Your task to perform on an android device: install app "Walmart Shopping & Grocery" Image 0: 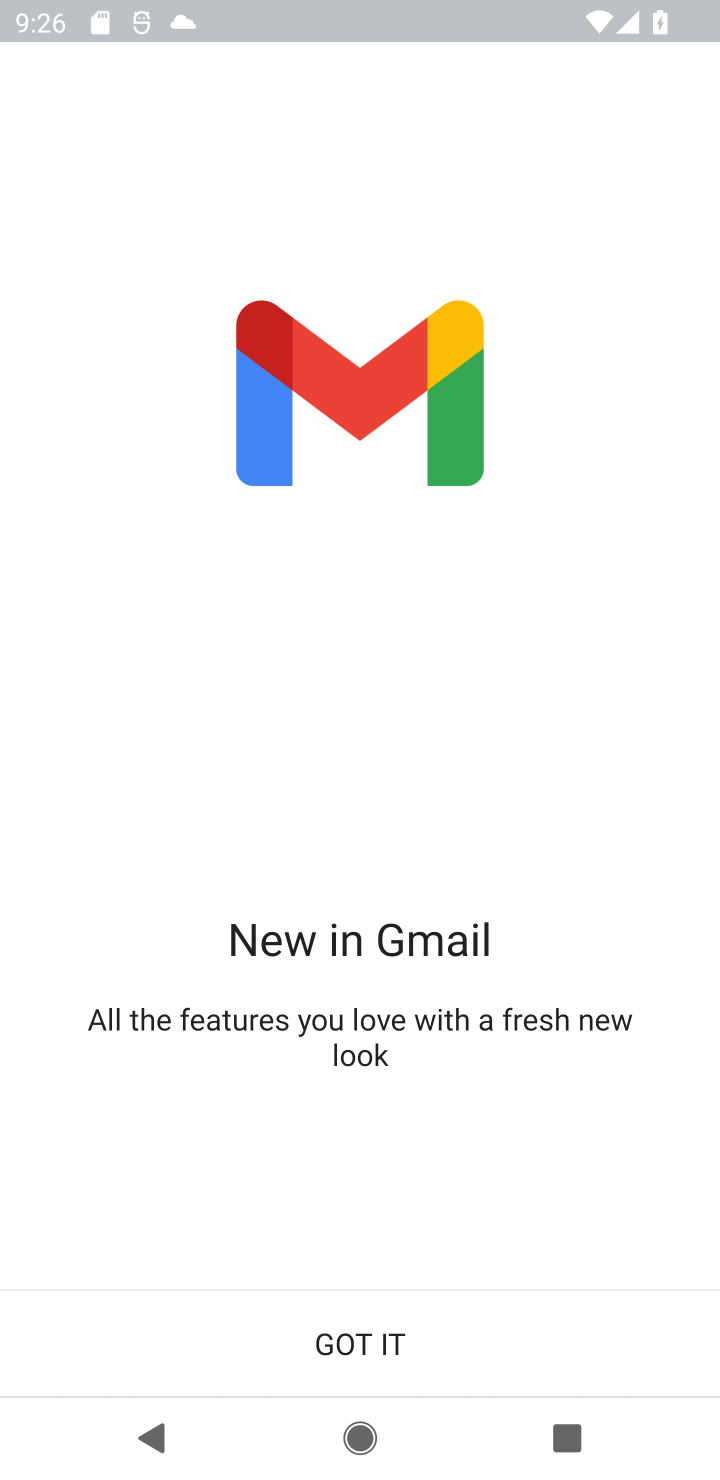
Step 0: press home button
Your task to perform on an android device: install app "Walmart Shopping & Grocery" Image 1: 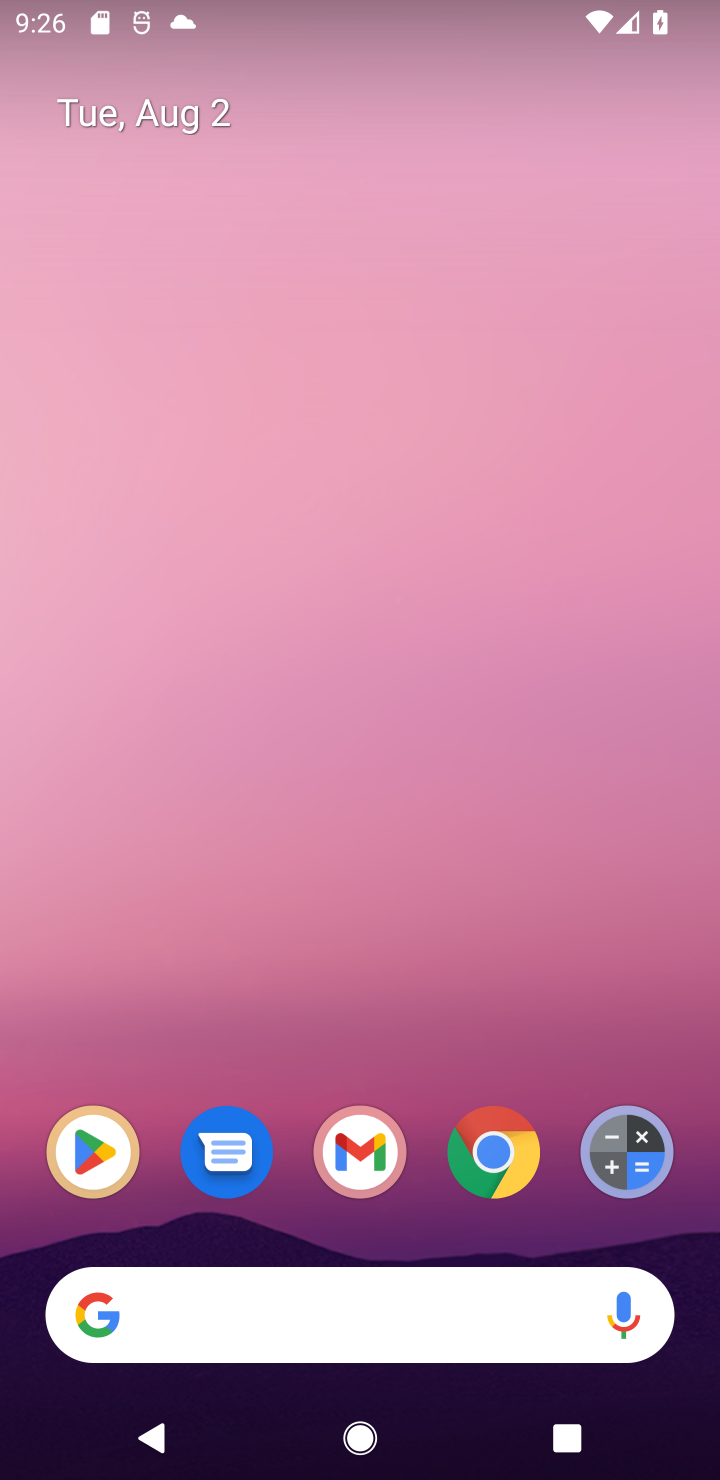
Step 1: click (83, 1143)
Your task to perform on an android device: install app "Walmart Shopping & Grocery" Image 2: 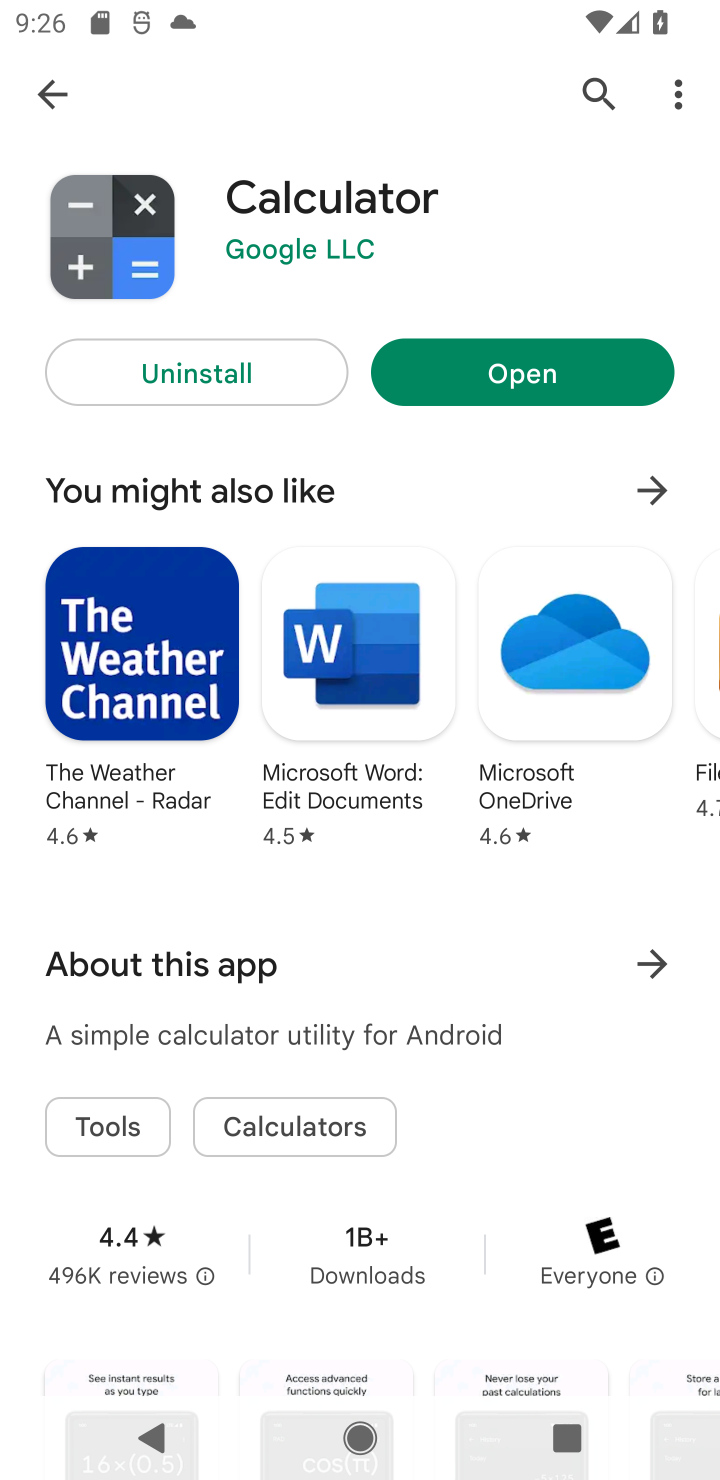
Step 2: click (42, 89)
Your task to perform on an android device: install app "Walmart Shopping & Grocery" Image 3: 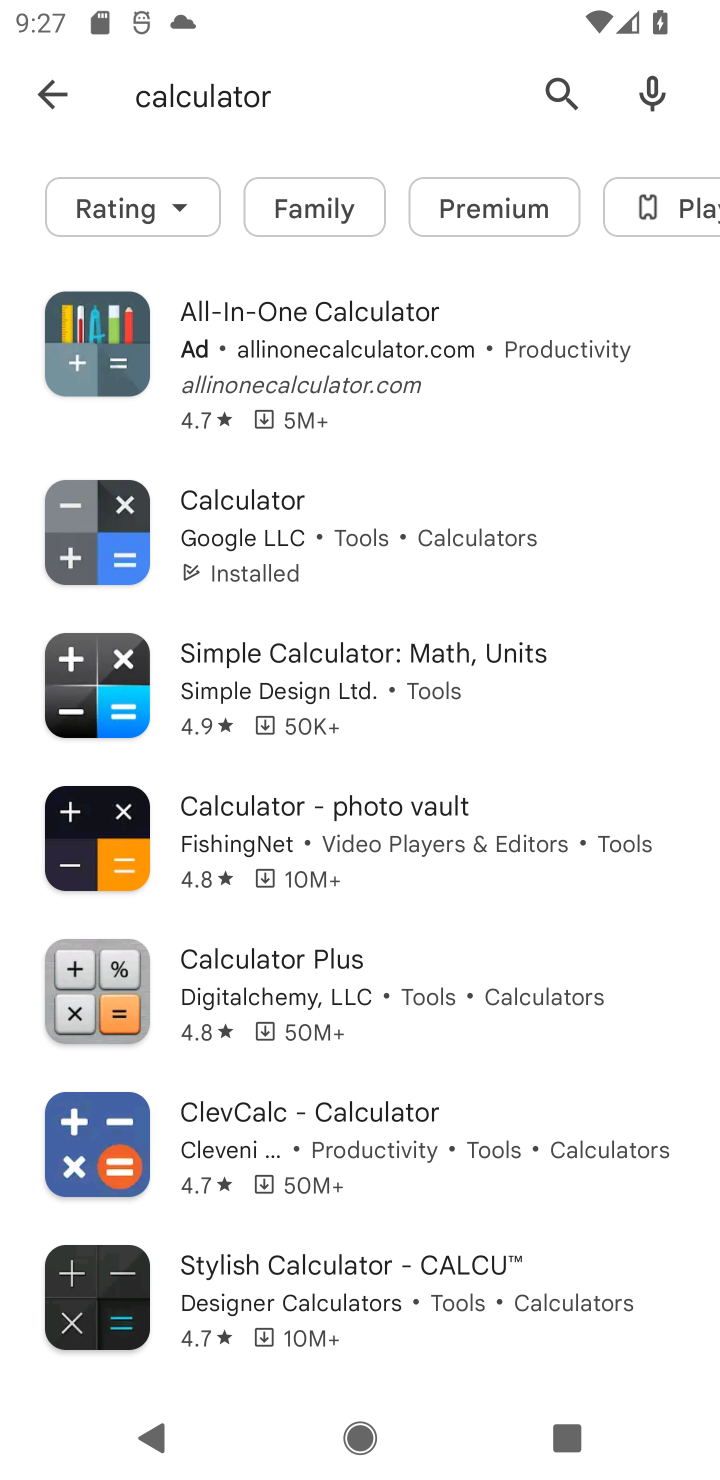
Step 3: click (55, 63)
Your task to perform on an android device: install app "Walmart Shopping & Grocery" Image 4: 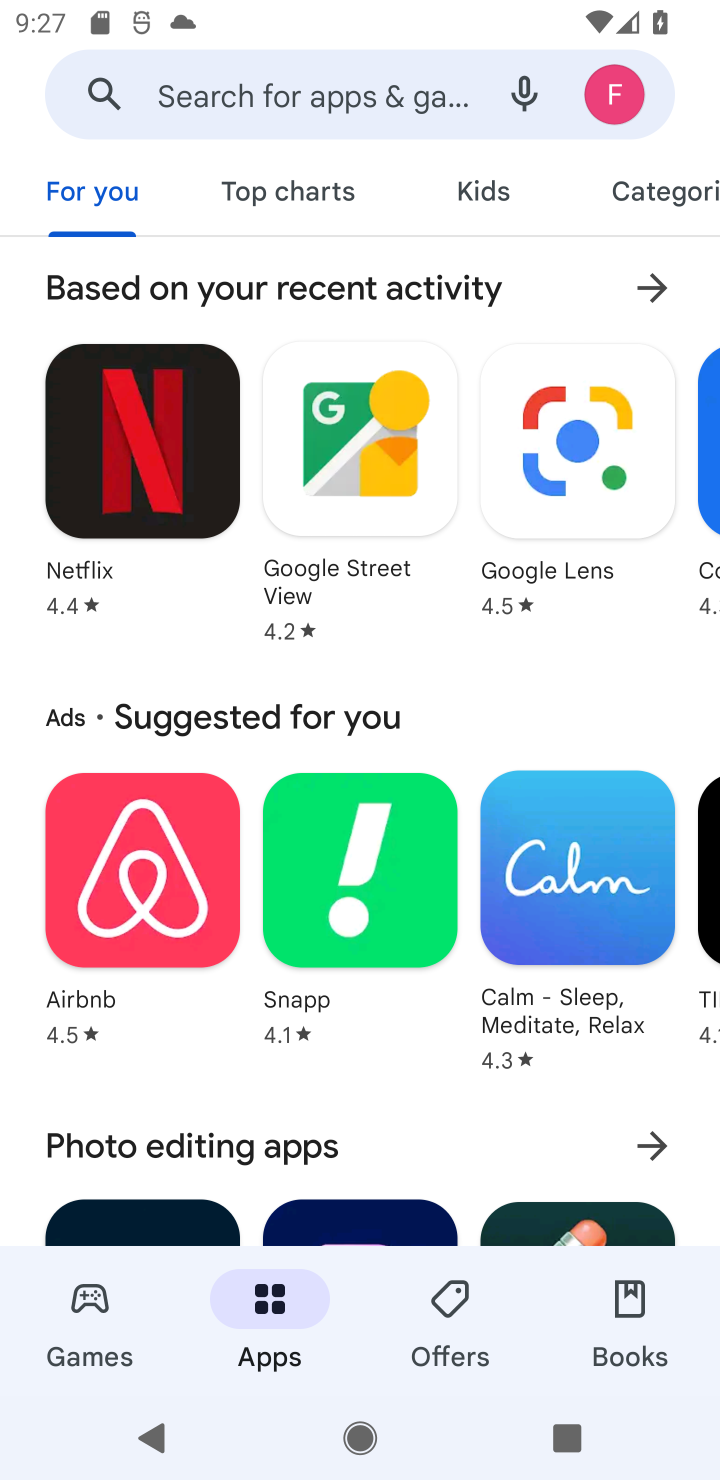
Step 4: click (231, 78)
Your task to perform on an android device: install app "Walmart Shopping & Grocery" Image 5: 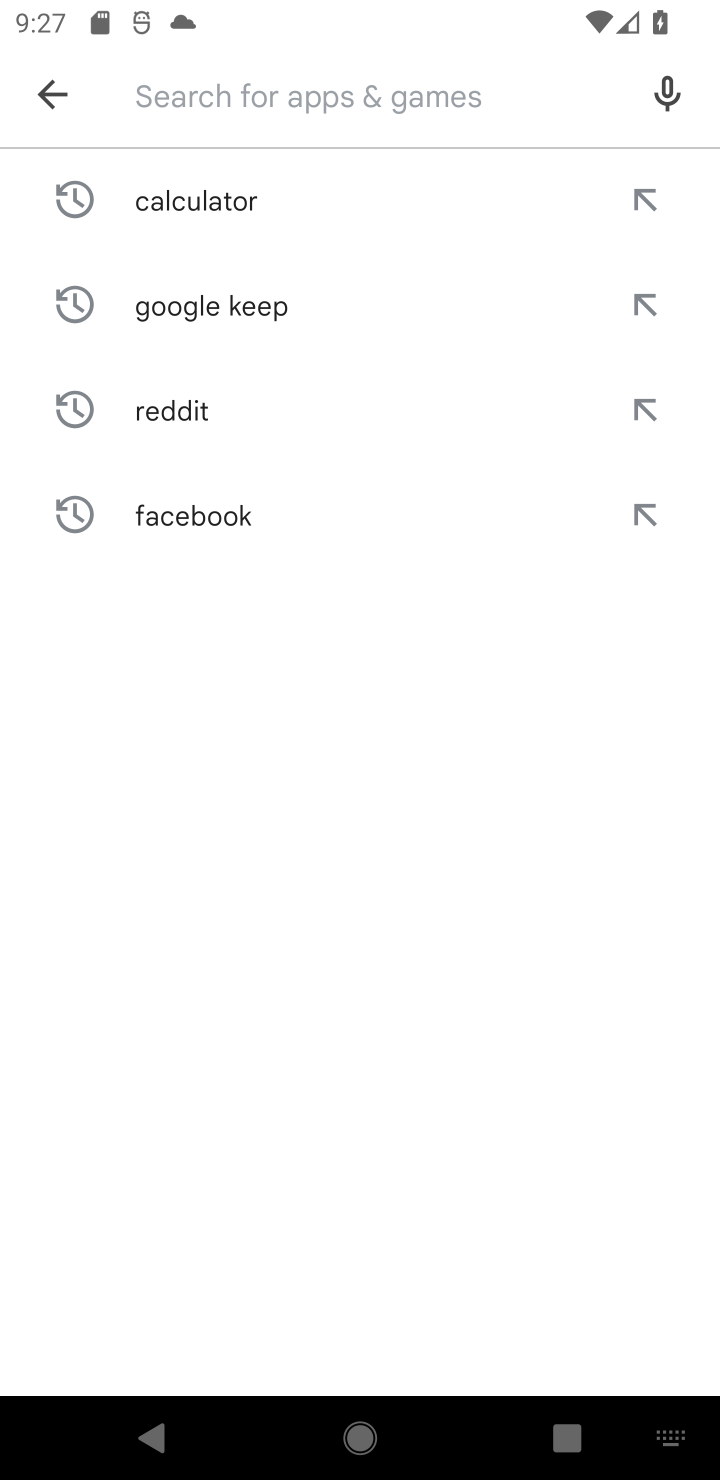
Step 5: type "Walmart Shopping & Grocery"
Your task to perform on an android device: install app "Walmart Shopping & Grocery" Image 6: 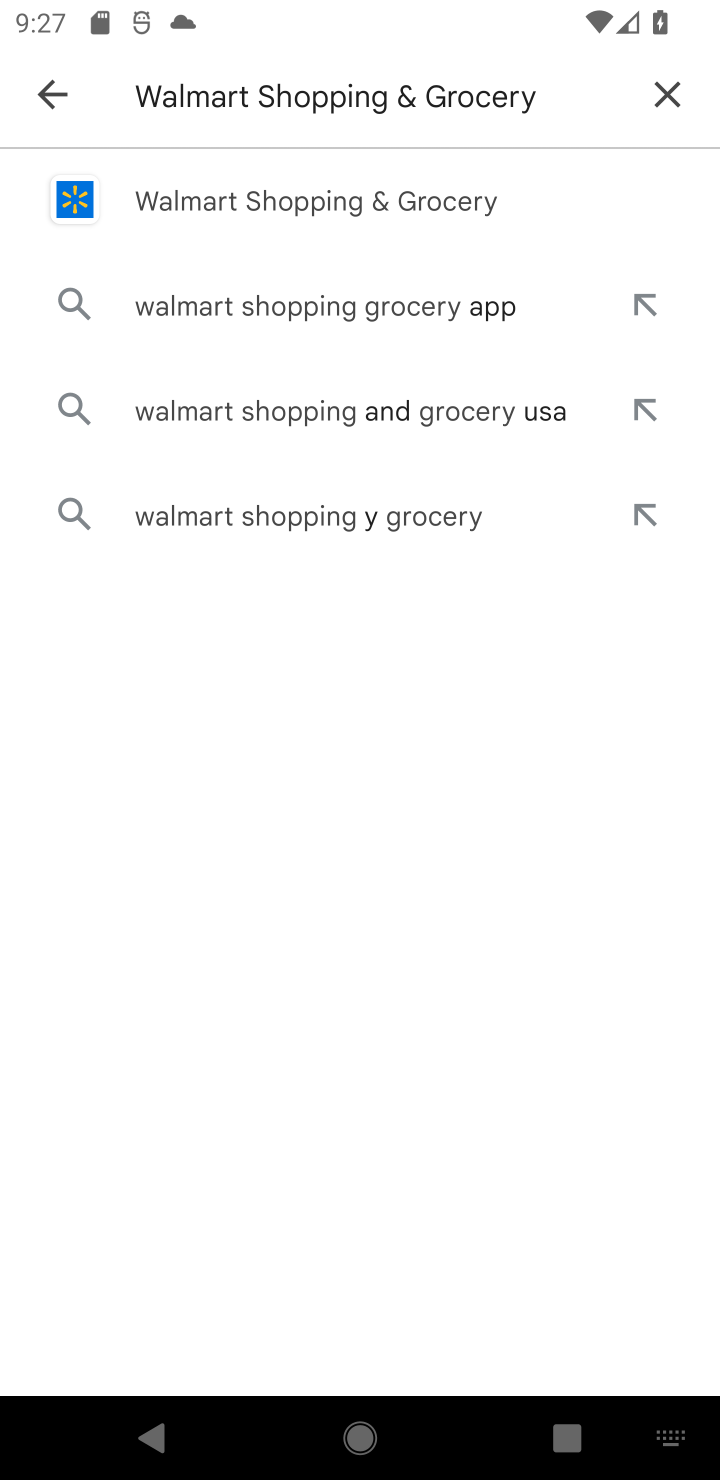
Step 6: click (350, 198)
Your task to perform on an android device: install app "Walmart Shopping & Grocery" Image 7: 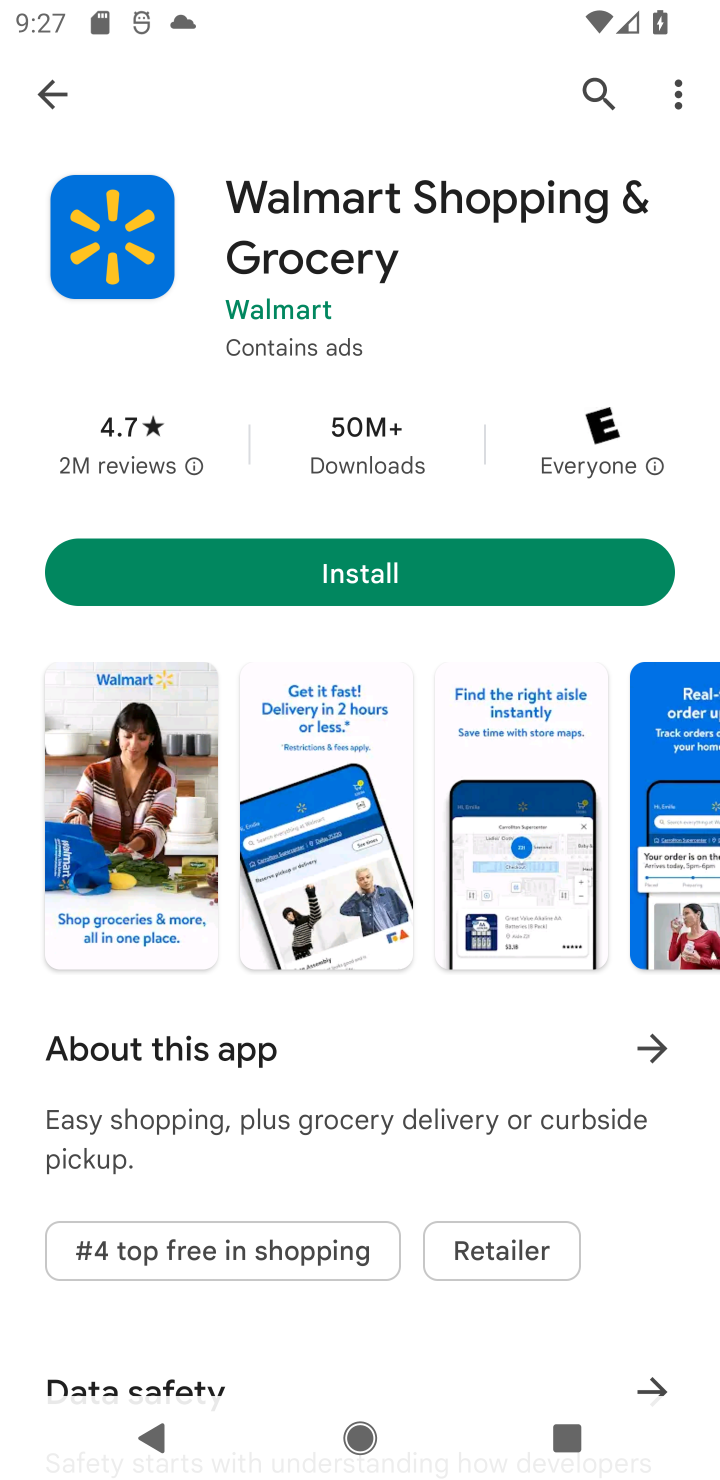
Step 7: click (342, 565)
Your task to perform on an android device: install app "Walmart Shopping & Grocery" Image 8: 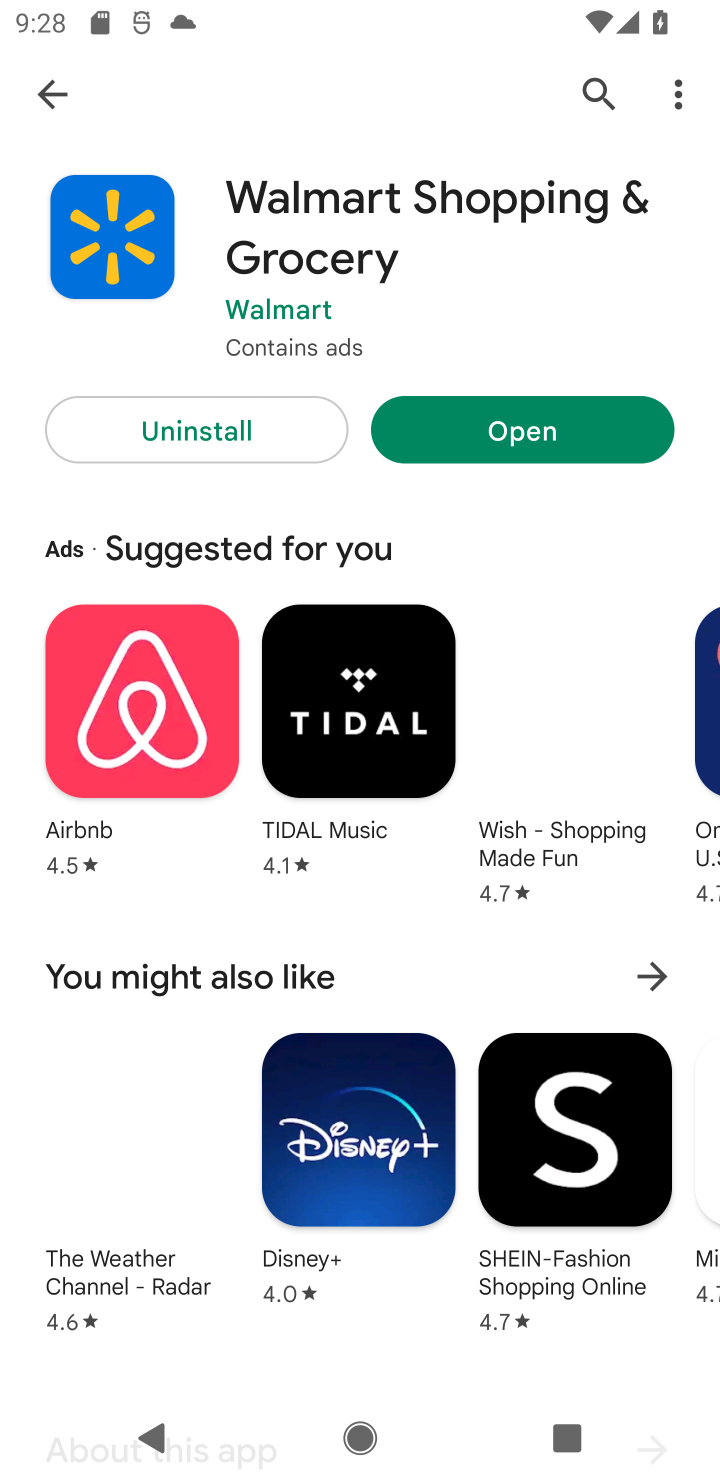
Step 8: task complete